Your task to perform on an android device: change the clock display to analog Image 0: 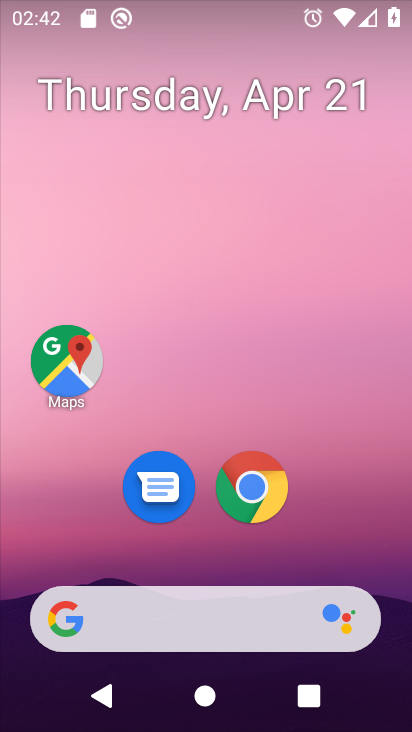
Step 0: drag from (211, 567) to (234, 106)
Your task to perform on an android device: change the clock display to analog Image 1: 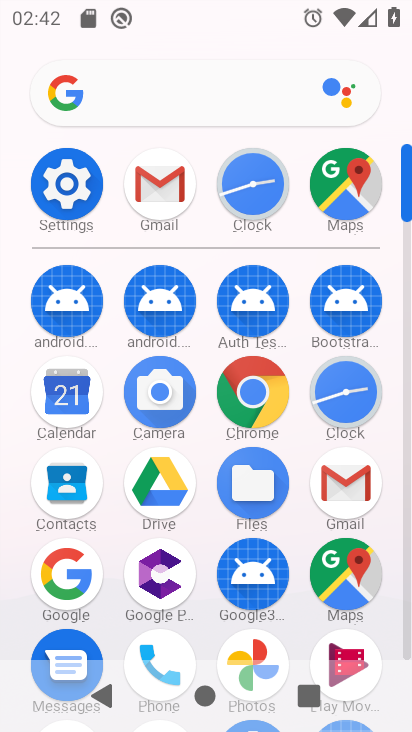
Step 1: click (360, 400)
Your task to perform on an android device: change the clock display to analog Image 2: 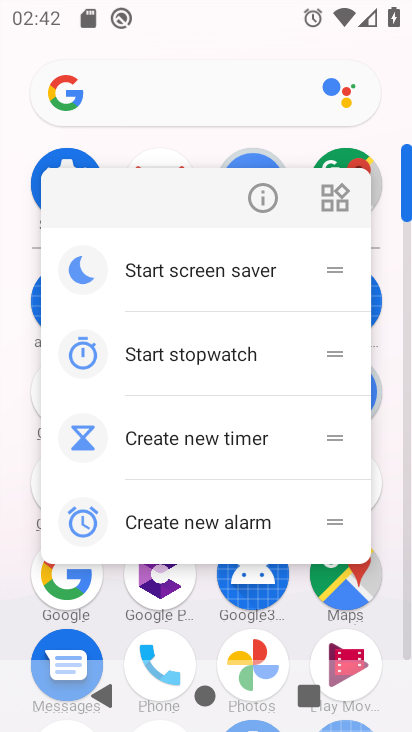
Step 2: click (263, 203)
Your task to perform on an android device: change the clock display to analog Image 3: 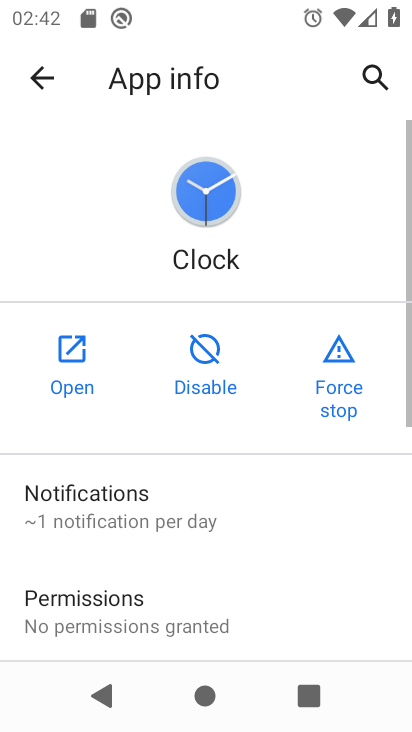
Step 3: click (74, 361)
Your task to perform on an android device: change the clock display to analog Image 4: 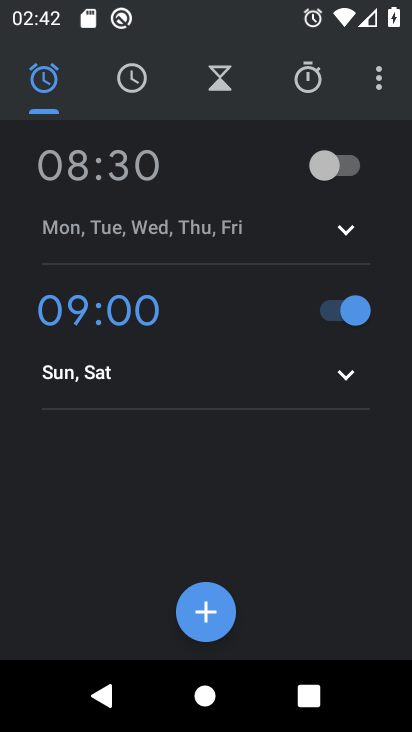
Step 4: drag from (374, 98) to (262, 166)
Your task to perform on an android device: change the clock display to analog Image 5: 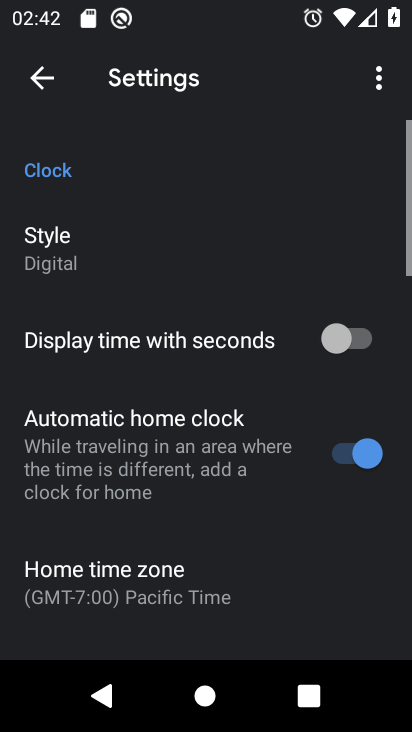
Step 5: click (100, 242)
Your task to perform on an android device: change the clock display to analog Image 6: 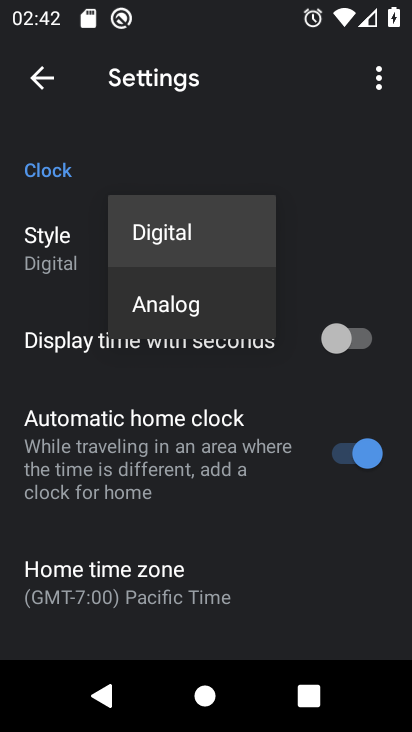
Step 6: click (190, 306)
Your task to perform on an android device: change the clock display to analog Image 7: 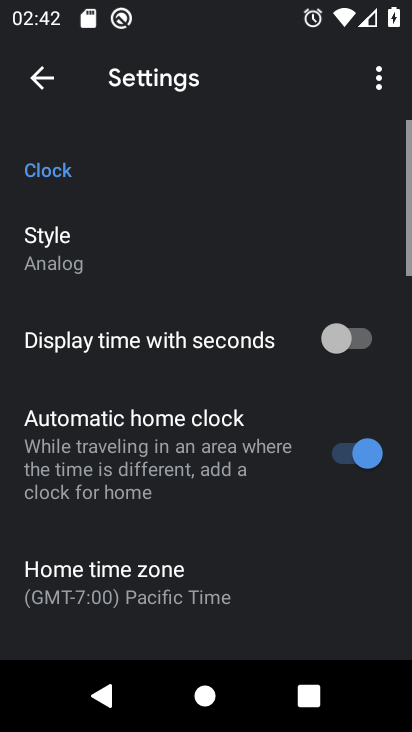
Step 7: task complete